Your task to perform on an android device: toggle translation in the chrome app Image 0: 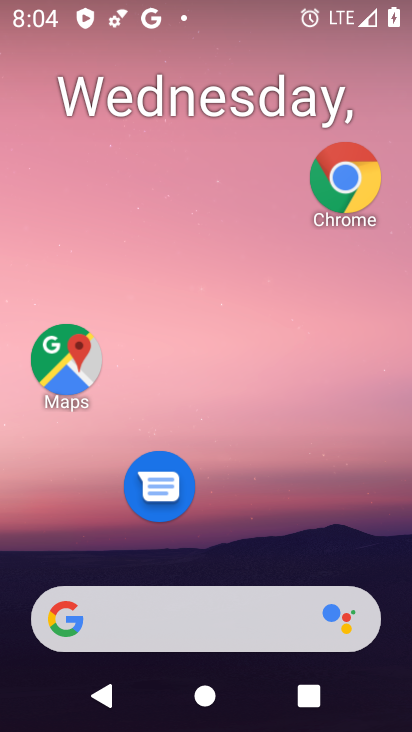
Step 0: drag from (249, 614) to (281, 204)
Your task to perform on an android device: toggle translation in the chrome app Image 1: 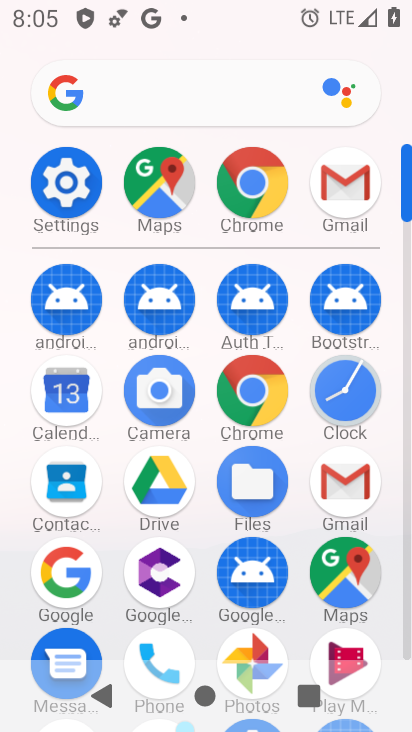
Step 1: click (238, 189)
Your task to perform on an android device: toggle translation in the chrome app Image 2: 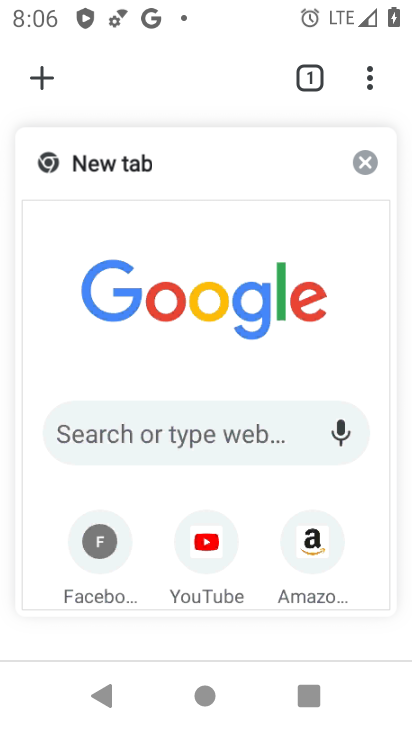
Step 2: click (229, 247)
Your task to perform on an android device: toggle translation in the chrome app Image 3: 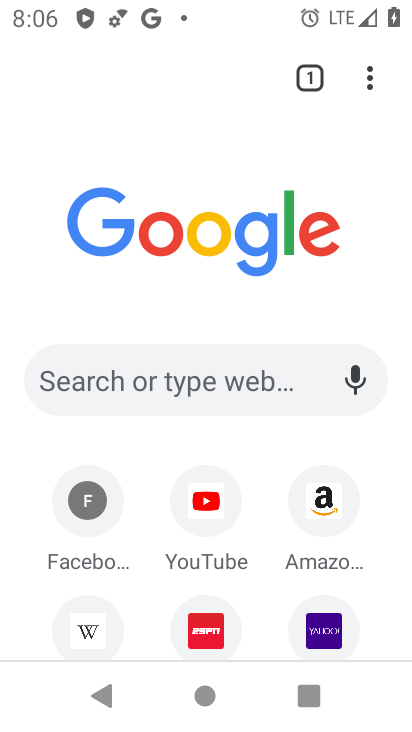
Step 3: click (375, 81)
Your task to perform on an android device: toggle translation in the chrome app Image 4: 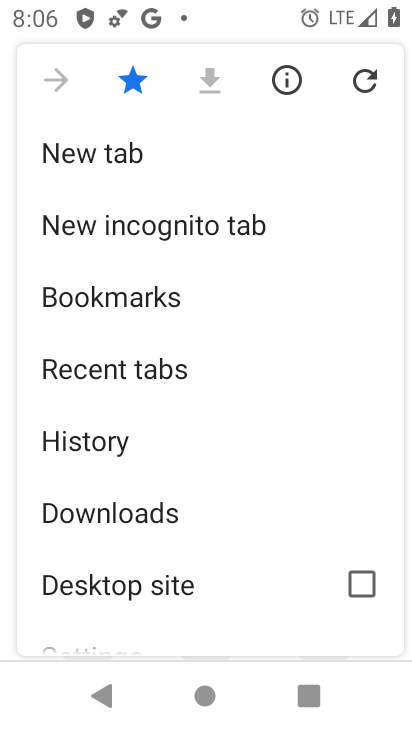
Step 4: task complete